Your task to perform on an android device: find which apps use the phone's location Image 0: 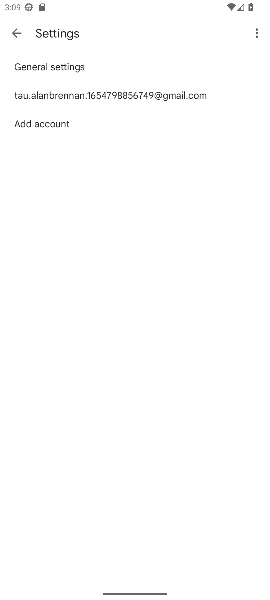
Step 0: press home button
Your task to perform on an android device: find which apps use the phone's location Image 1: 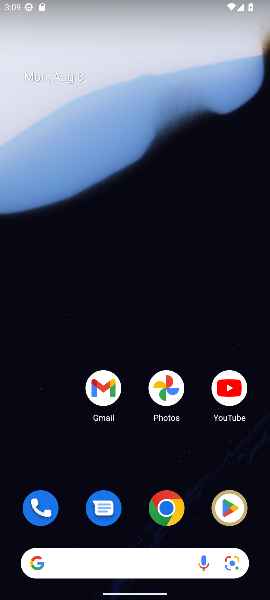
Step 1: drag from (47, 441) to (92, 23)
Your task to perform on an android device: find which apps use the phone's location Image 2: 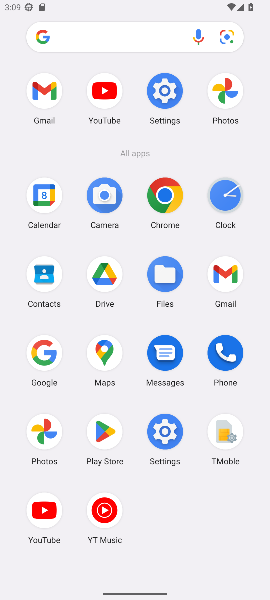
Step 2: click (166, 90)
Your task to perform on an android device: find which apps use the phone's location Image 3: 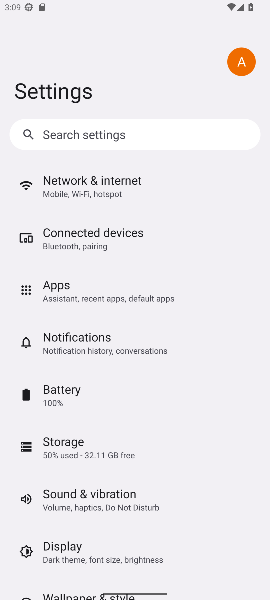
Step 3: drag from (174, 468) to (156, 163)
Your task to perform on an android device: find which apps use the phone's location Image 4: 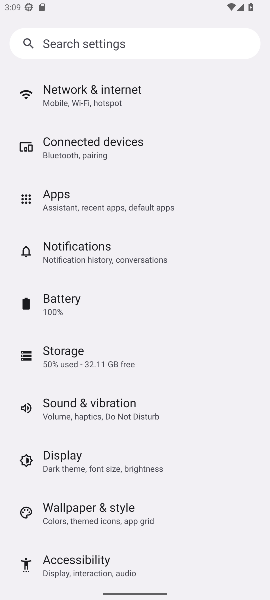
Step 4: drag from (182, 499) to (183, 168)
Your task to perform on an android device: find which apps use the phone's location Image 5: 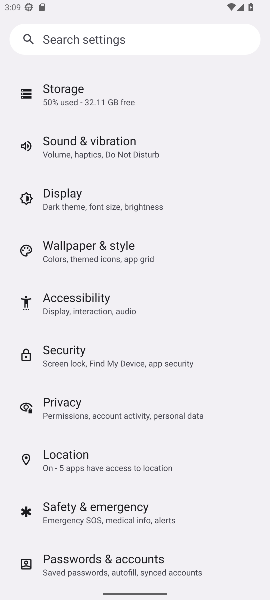
Step 5: click (65, 454)
Your task to perform on an android device: find which apps use the phone's location Image 6: 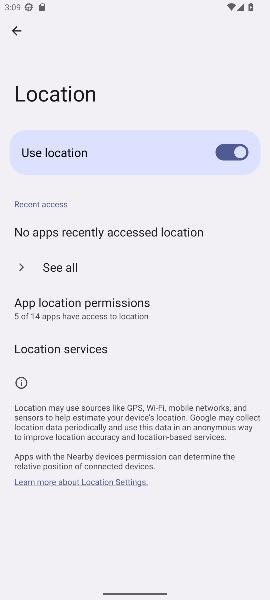
Step 6: click (34, 266)
Your task to perform on an android device: find which apps use the phone's location Image 7: 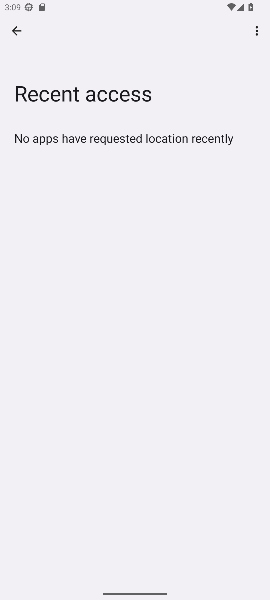
Step 7: click (14, 26)
Your task to perform on an android device: find which apps use the phone's location Image 8: 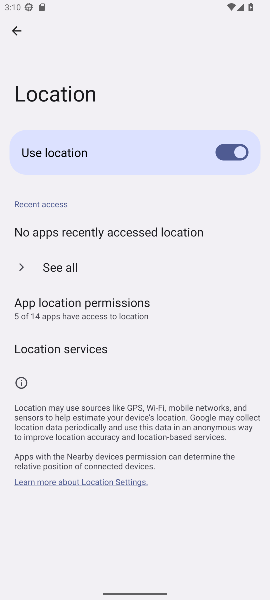
Step 8: task complete